Your task to perform on an android device: toggle notification dots Image 0: 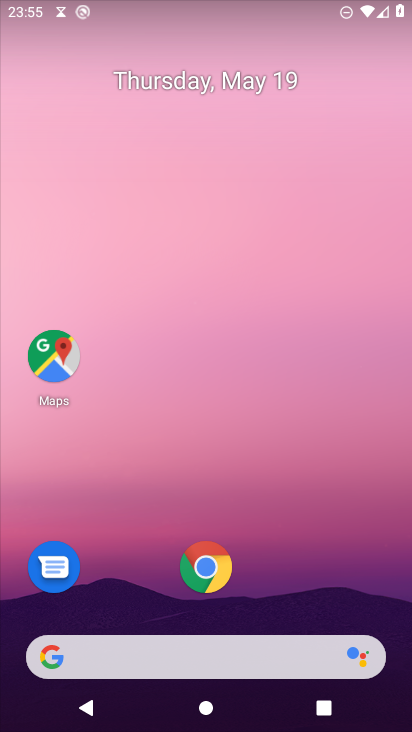
Step 0: drag from (269, 623) to (329, 35)
Your task to perform on an android device: toggle notification dots Image 1: 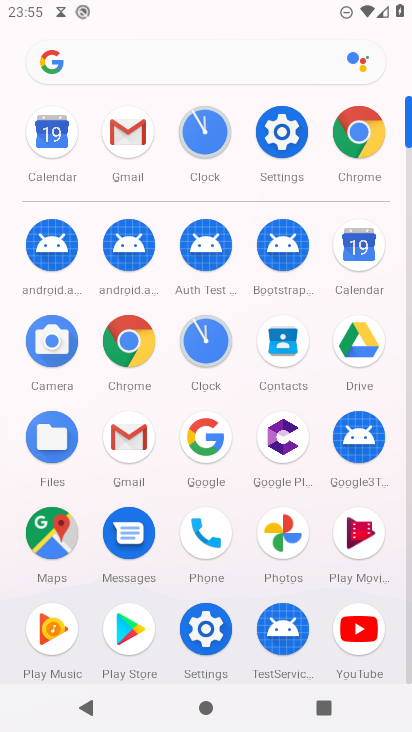
Step 1: click (282, 125)
Your task to perform on an android device: toggle notification dots Image 2: 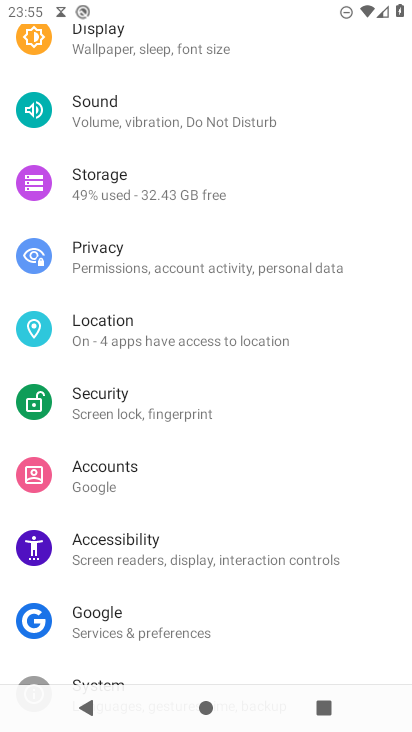
Step 2: drag from (164, 103) to (210, 519)
Your task to perform on an android device: toggle notification dots Image 3: 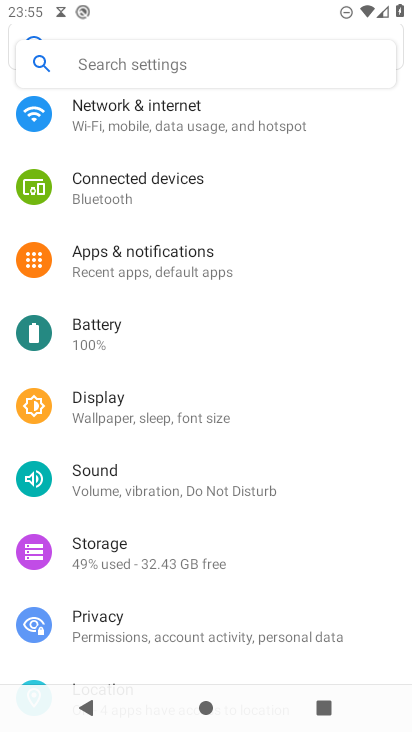
Step 3: click (232, 260)
Your task to perform on an android device: toggle notification dots Image 4: 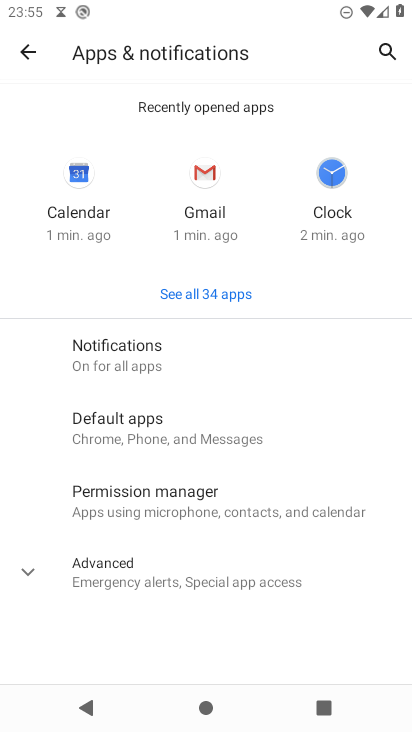
Step 4: click (174, 354)
Your task to perform on an android device: toggle notification dots Image 5: 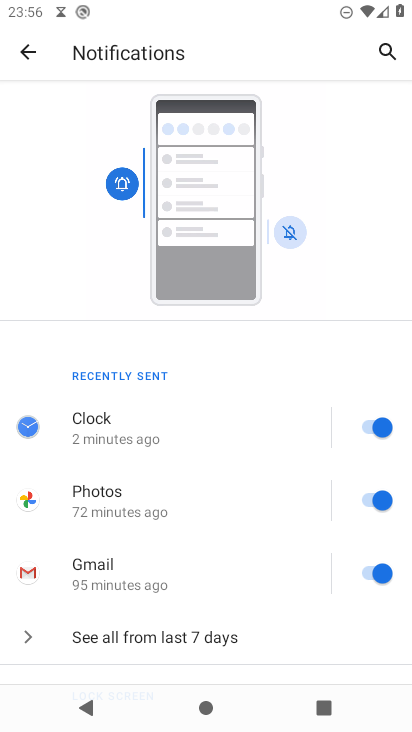
Step 5: drag from (255, 637) to (293, 58)
Your task to perform on an android device: toggle notification dots Image 6: 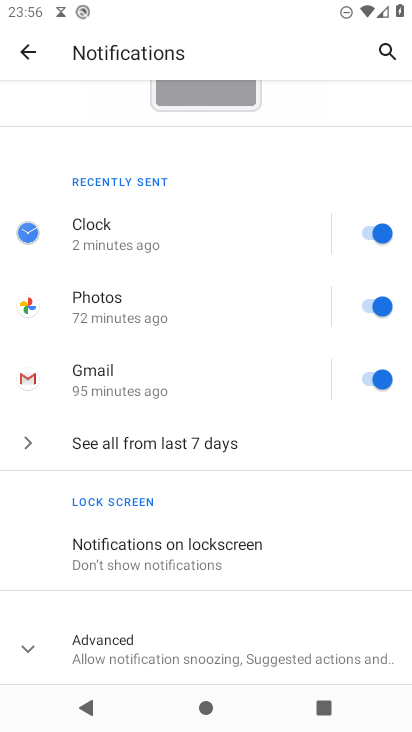
Step 6: click (123, 651)
Your task to perform on an android device: toggle notification dots Image 7: 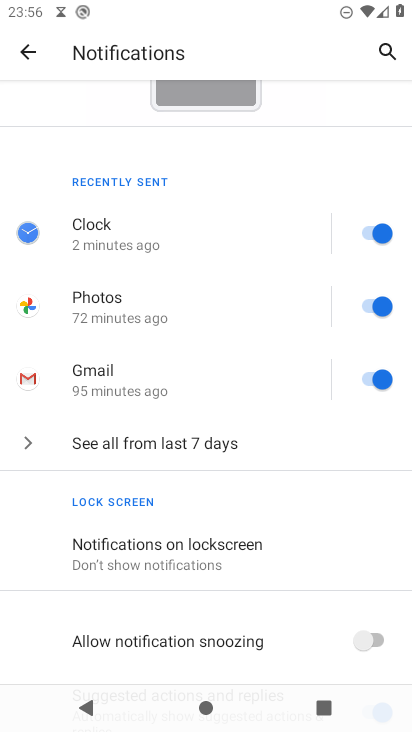
Step 7: drag from (224, 671) to (273, 174)
Your task to perform on an android device: toggle notification dots Image 8: 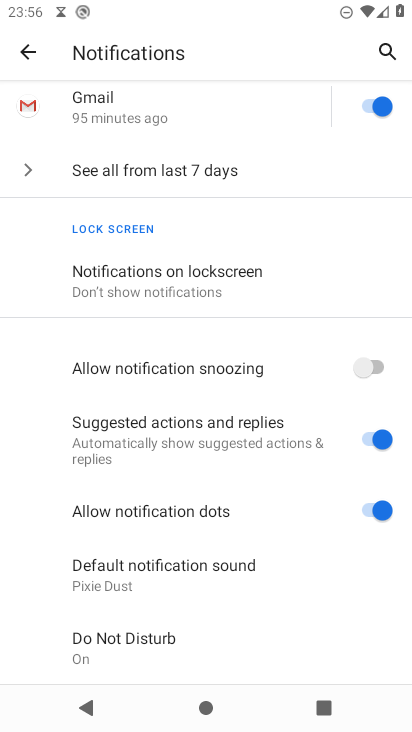
Step 8: click (365, 505)
Your task to perform on an android device: toggle notification dots Image 9: 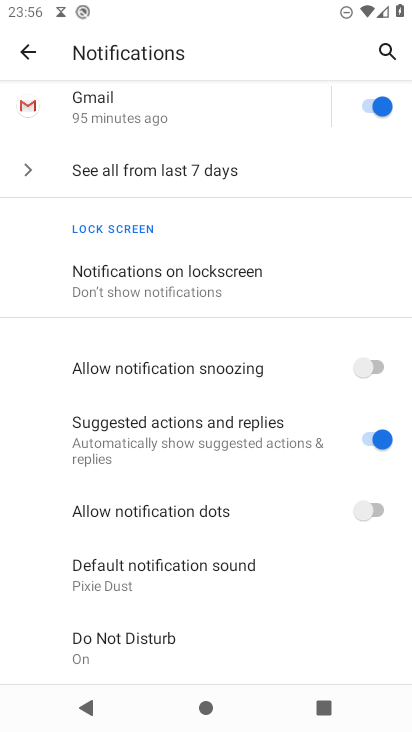
Step 9: task complete